Your task to perform on an android device: open app "WhatsApp Messenger" (install if not already installed) Image 0: 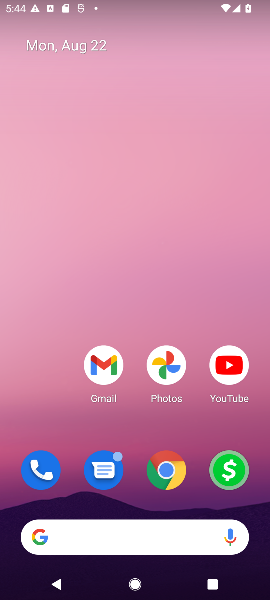
Step 0: drag from (74, 493) to (96, 178)
Your task to perform on an android device: open app "WhatsApp Messenger" (install if not already installed) Image 1: 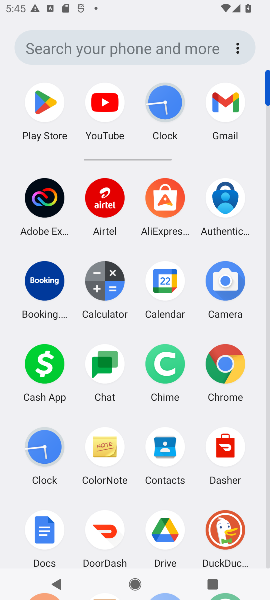
Step 1: click (40, 105)
Your task to perform on an android device: open app "WhatsApp Messenger" (install if not already installed) Image 2: 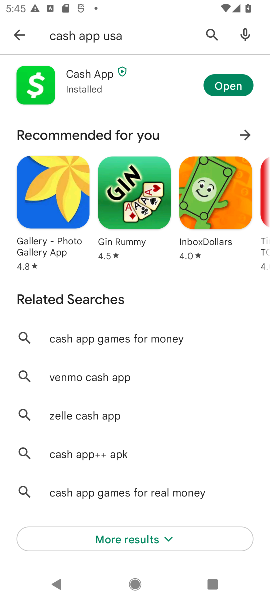
Step 2: click (23, 35)
Your task to perform on an android device: open app "WhatsApp Messenger" (install if not already installed) Image 3: 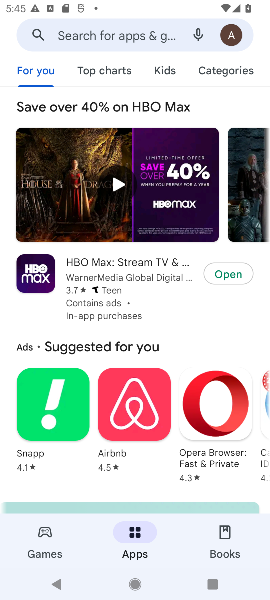
Step 3: click (85, 28)
Your task to perform on an android device: open app "WhatsApp Messenger" (install if not already installed) Image 4: 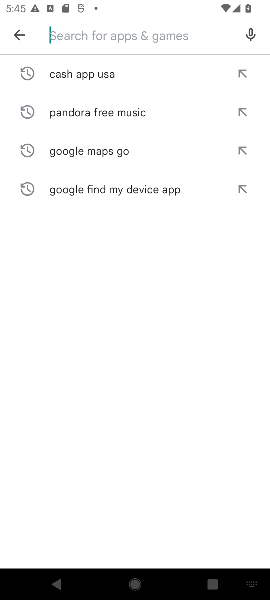
Step 4: type "whatsapp messenger "
Your task to perform on an android device: open app "WhatsApp Messenger" (install if not already installed) Image 5: 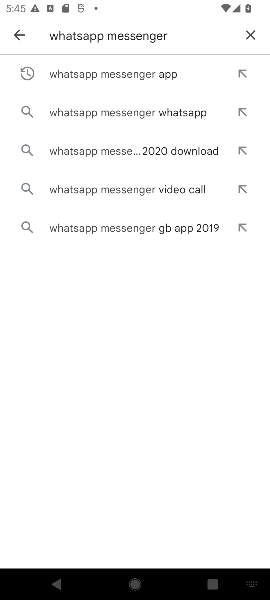
Step 5: click (143, 71)
Your task to perform on an android device: open app "WhatsApp Messenger" (install if not already installed) Image 6: 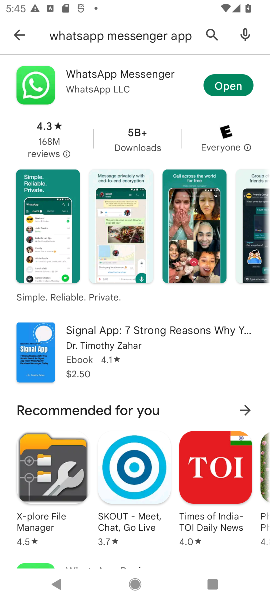
Step 6: click (230, 87)
Your task to perform on an android device: open app "WhatsApp Messenger" (install if not already installed) Image 7: 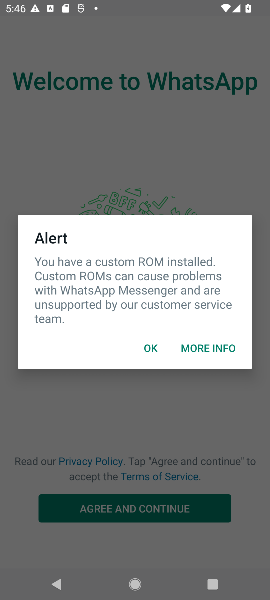
Step 7: task complete